Your task to perform on an android device: Go to network settings Image 0: 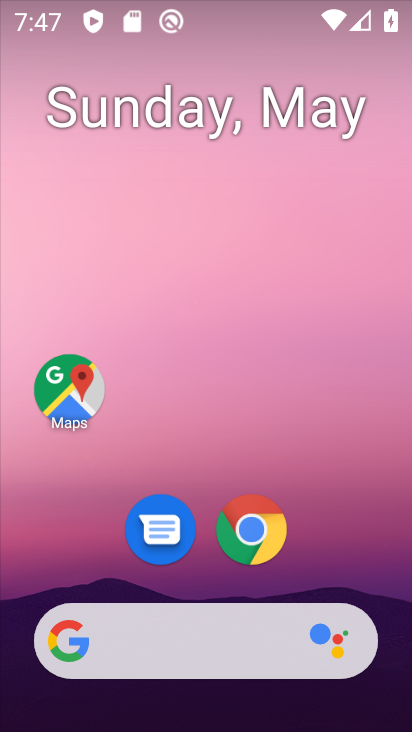
Step 0: drag from (343, 541) to (312, 86)
Your task to perform on an android device: Go to network settings Image 1: 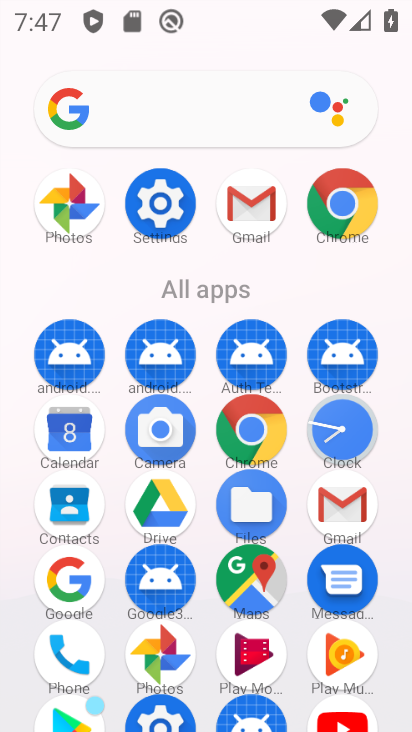
Step 1: click (176, 221)
Your task to perform on an android device: Go to network settings Image 2: 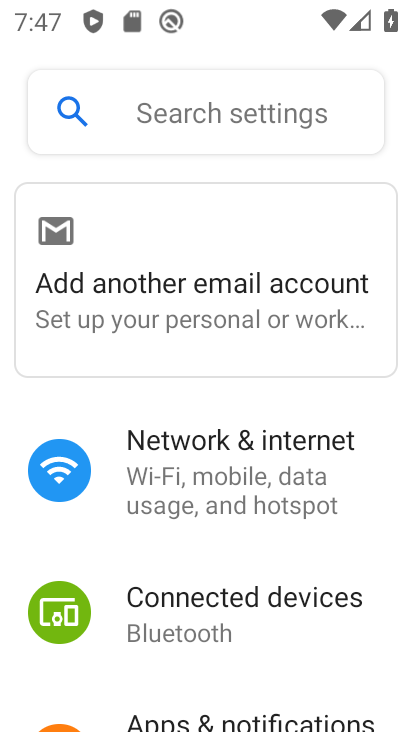
Step 2: click (203, 440)
Your task to perform on an android device: Go to network settings Image 3: 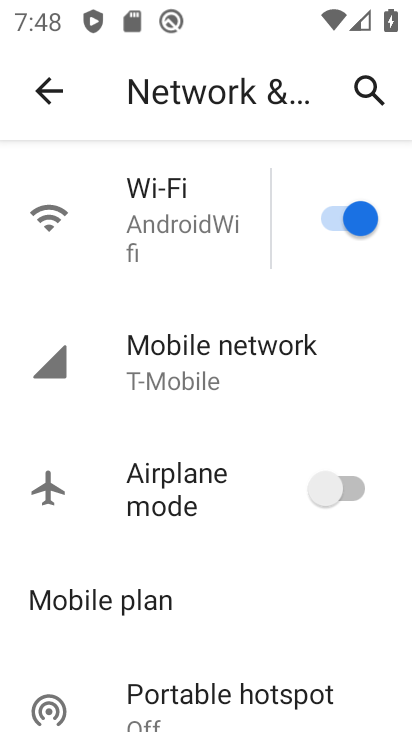
Step 3: task complete